Your task to perform on an android device: Open Maps and search for coffee Image 0: 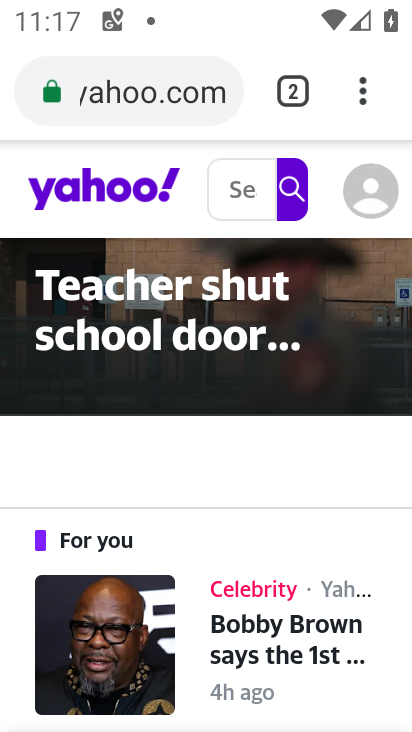
Step 0: press home button
Your task to perform on an android device: Open Maps and search for coffee Image 1: 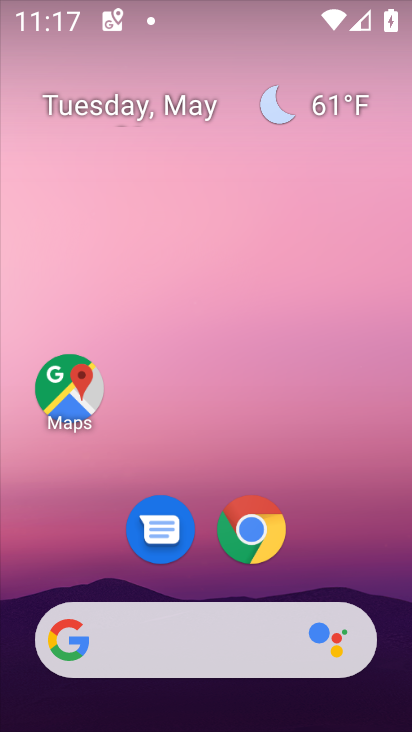
Step 1: click (63, 389)
Your task to perform on an android device: Open Maps and search for coffee Image 2: 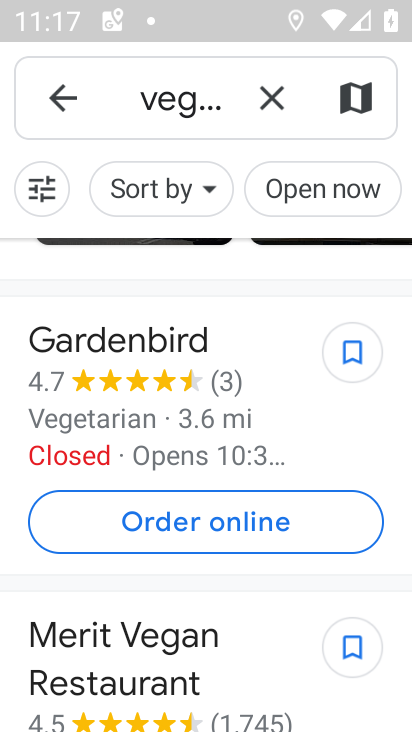
Step 2: click (295, 99)
Your task to perform on an android device: Open Maps and search for coffee Image 3: 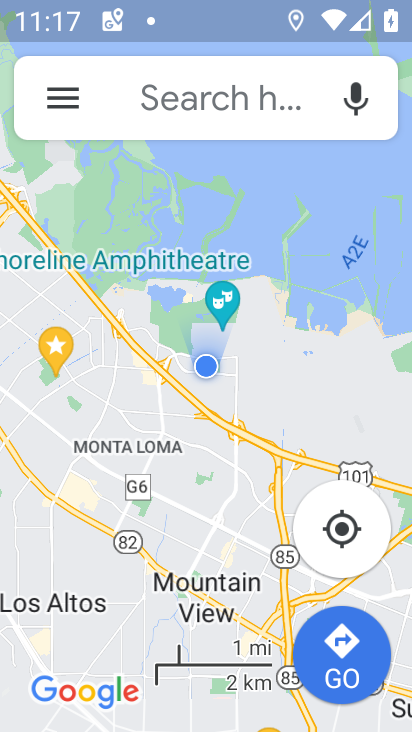
Step 3: click (147, 87)
Your task to perform on an android device: Open Maps and search for coffee Image 4: 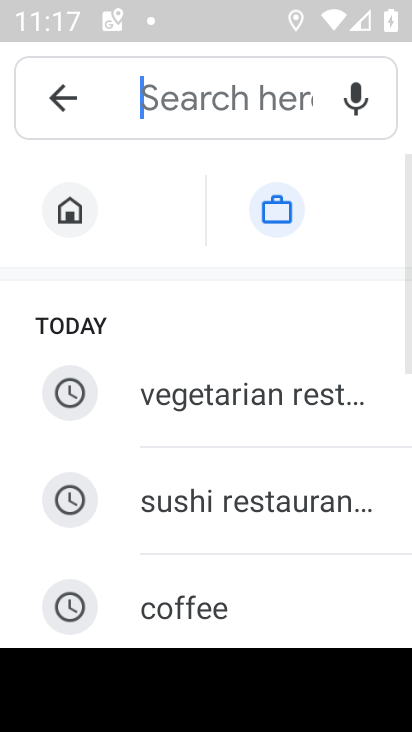
Step 4: click (161, 612)
Your task to perform on an android device: Open Maps and search for coffee Image 5: 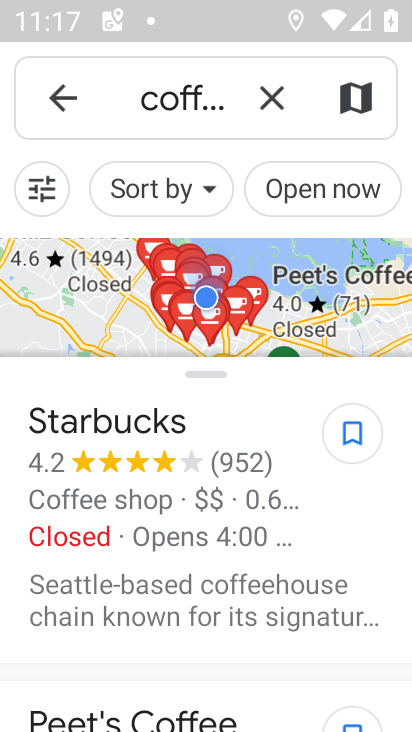
Step 5: task complete